Your task to perform on an android device: turn on location history Image 0: 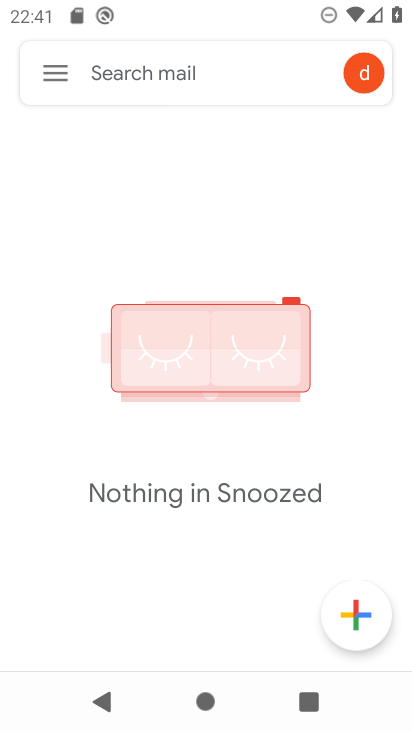
Step 0: press home button
Your task to perform on an android device: turn on location history Image 1: 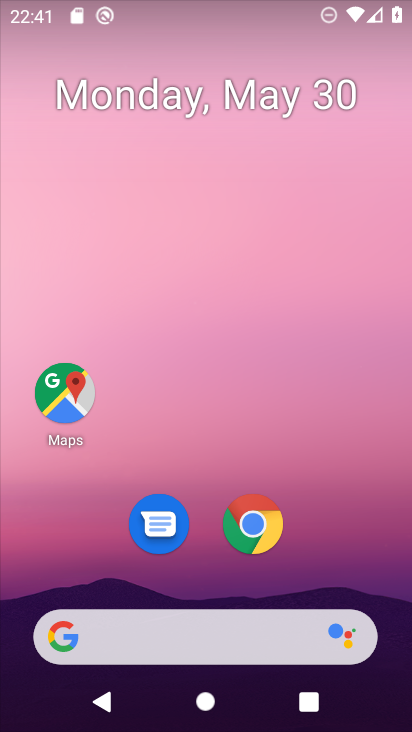
Step 1: drag from (292, 541) to (287, 33)
Your task to perform on an android device: turn on location history Image 2: 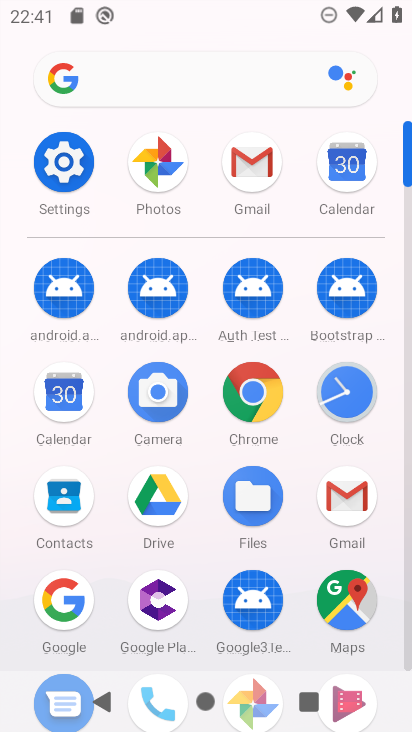
Step 2: click (82, 164)
Your task to perform on an android device: turn on location history Image 3: 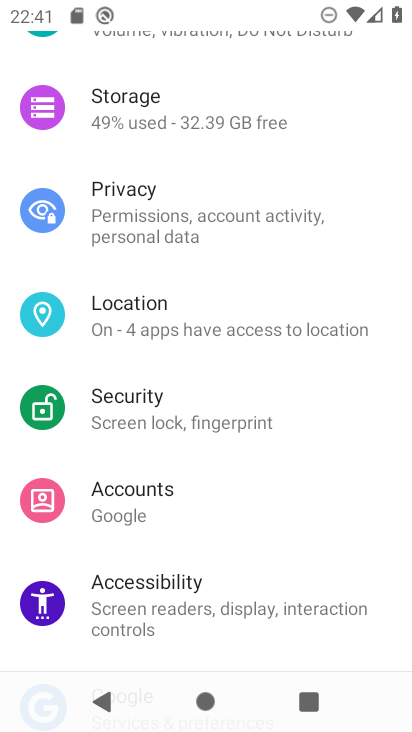
Step 3: click (164, 317)
Your task to perform on an android device: turn on location history Image 4: 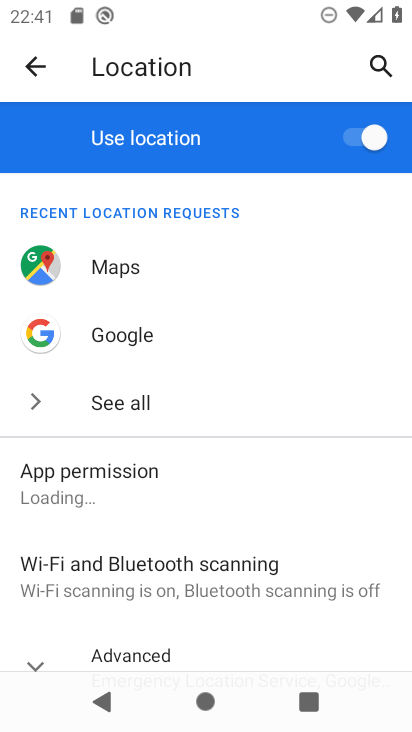
Step 4: drag from (265, 516) to (276, 233)
Your task to perform on an android device: turn on location history Image 5: 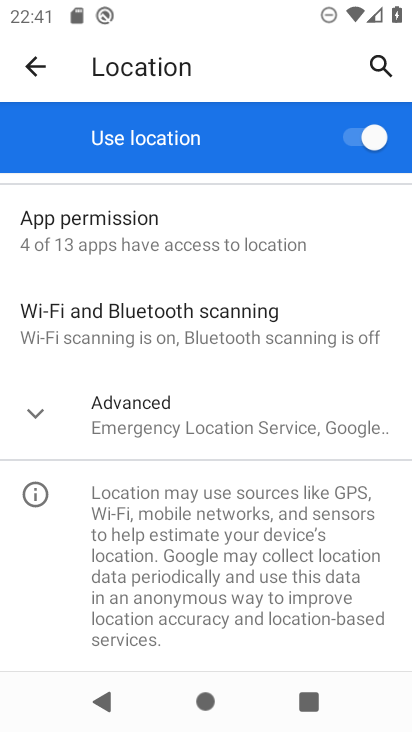
Step 5: click (35, 420)
Your task to perform on an android device: turn on location history Image 6: 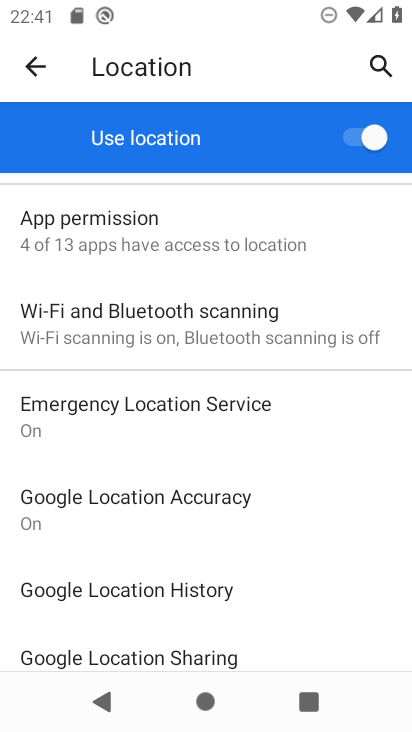
Step 6: click (197, 595)
Your task to perform on an android device: turn on location history Image 7: 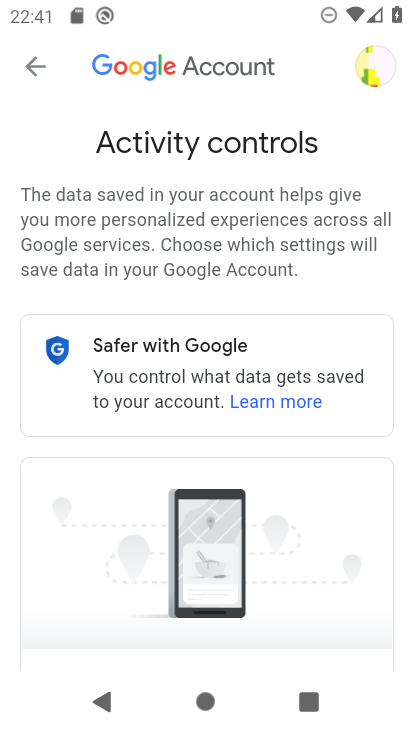
Step 7: drag from (257, 552) to (245, 195)
Your task to perform on an android device: turn on location history Image 8: 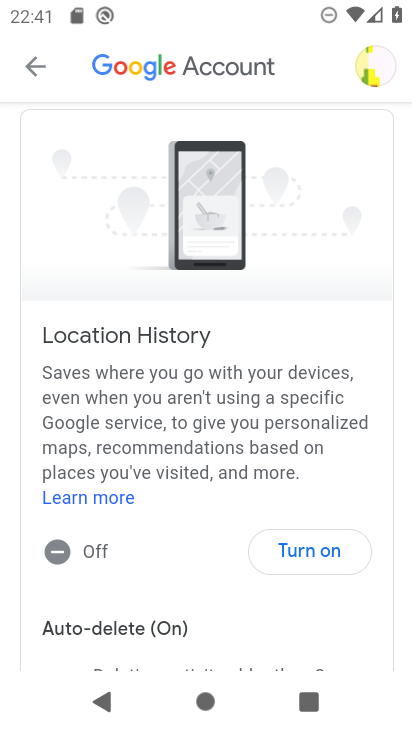
Step 8: click (330, 541)
Your task to perform on an android device: turn on location history Image 9: 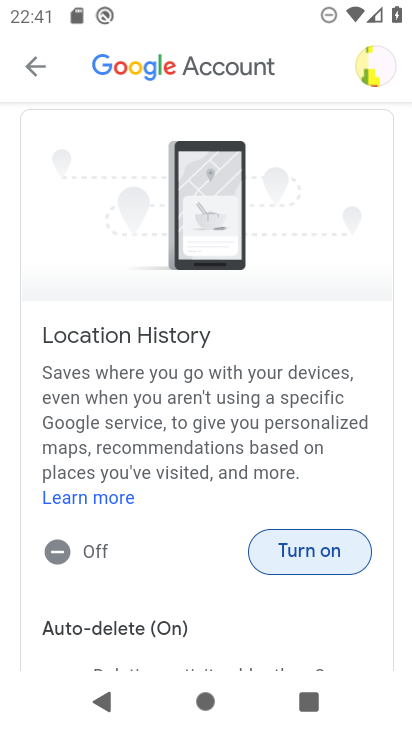
Step 9: click (330, 539)
Your task to perform on an android device: turn on location history Image 10: 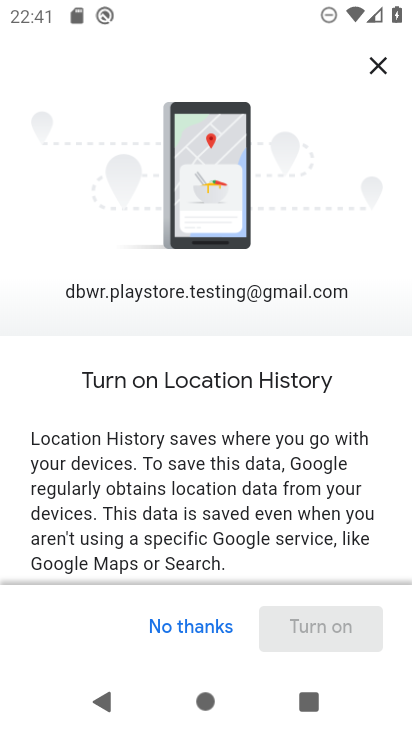
Step 10: drag from (323, 492) to (315, 75)
Your task to perform on an android device: turn on location history Image 11: 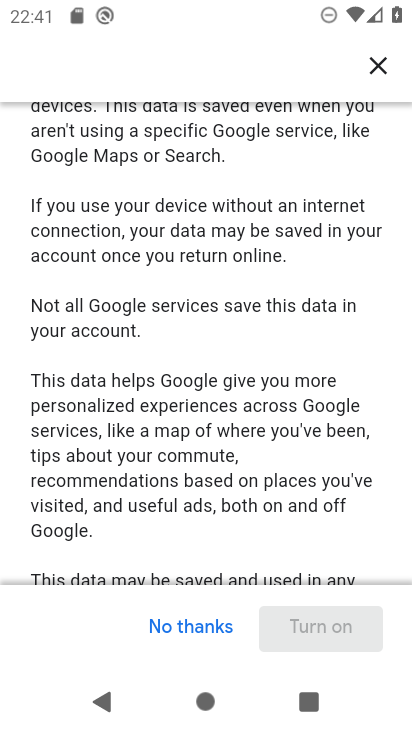
Step 11: drag from (248, 479) to (273, 18)
Your task to perform on an android device: turn on location history Image 12: 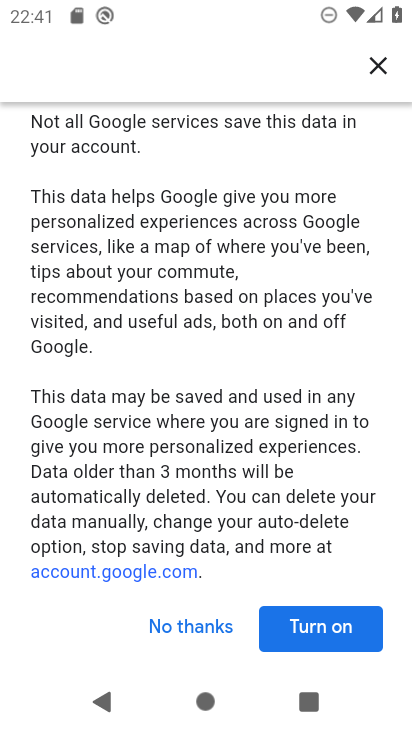
Step 12: click (324, 621)
Your task to perform on an android device: turn on location history Image 13: 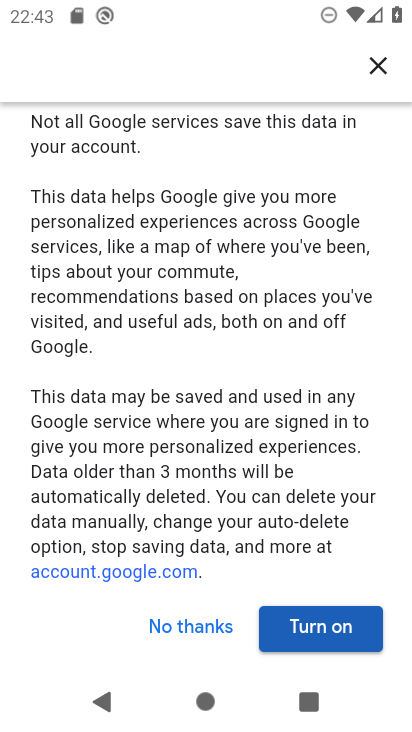
Step 13: click (315, 628)
Your task to perform on an android device: turn on location history Image 14: 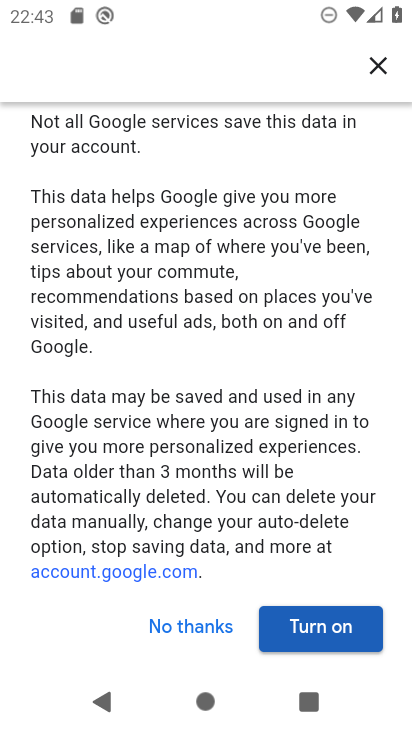
Step 14: click (315, 629)
Your task to perform on an android device: turn on location history Image 15: 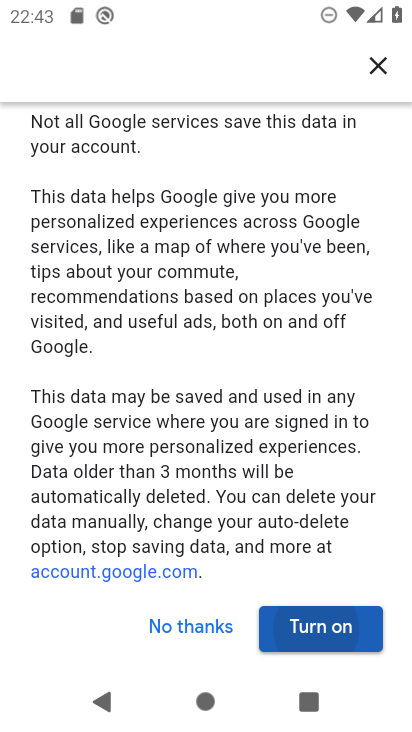
Step 15: click (315, 628)
Your task to perform on an android device: turn on location history Image 16: 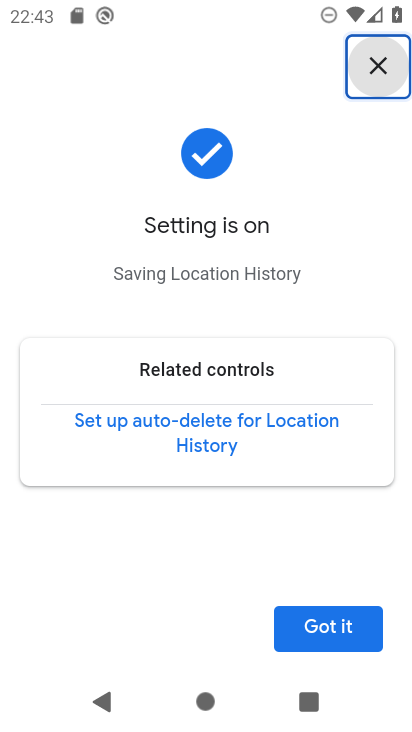
Step 16: click (315, 629)
Your task to perform on an android device: turn on location history Image 17: 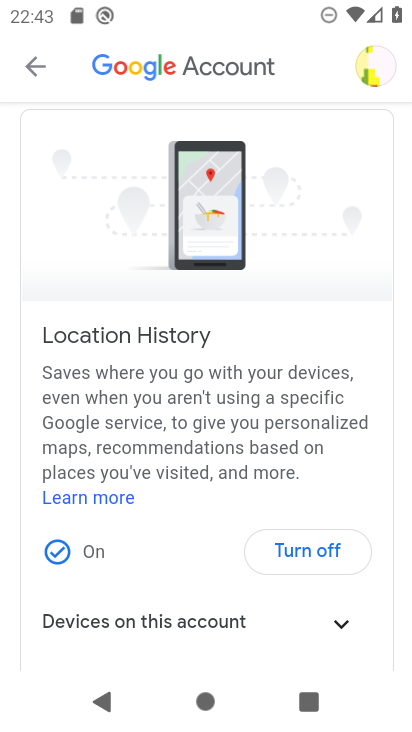
Step 17: task complete